Your task to perform on an android device: turn on the 24-hour format for clock Image 0: 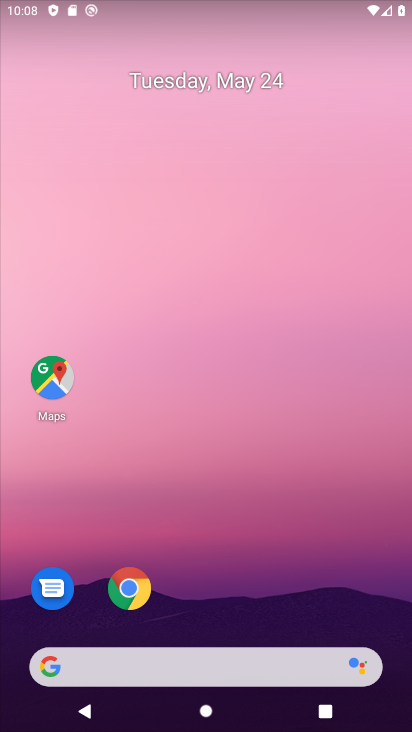
Step 0: drag from (254, 607) to (207, 11)
Your task to perform on an android device: turn on the 24-hour format for clock Image 1: 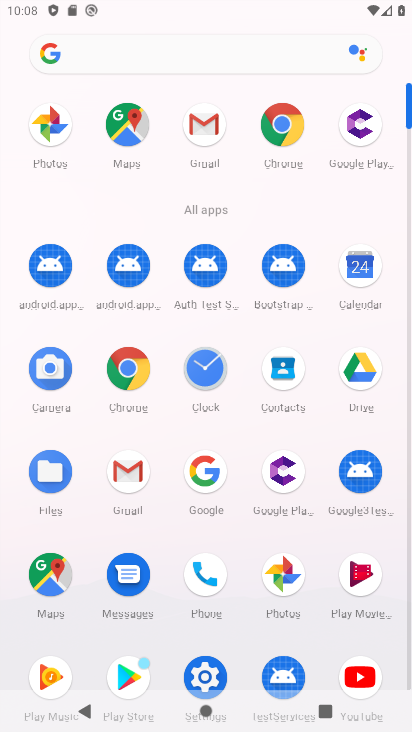
Step 1: click (349, 265)
Your task to perform on an android device: turn on the 24-hour format for clock Image 2: 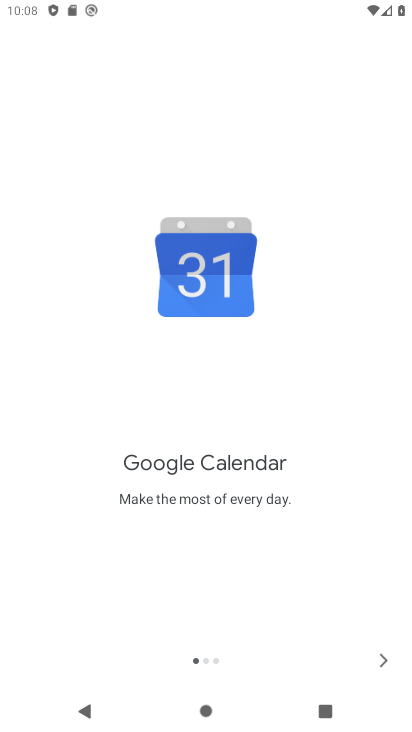
Step 2: click (382, 666)
Your task to perform on an android device: turn on the 24-hour format for clock Image 3: 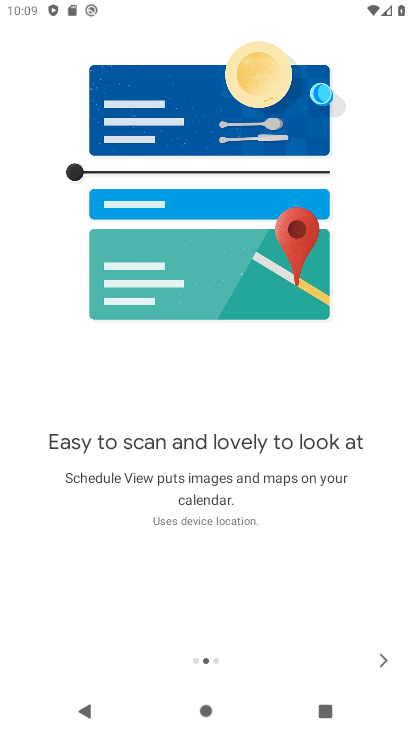
Step 3: click (382, 666)
Your task to perform on an android device: turn on the 24-hour format for clock Image 4: 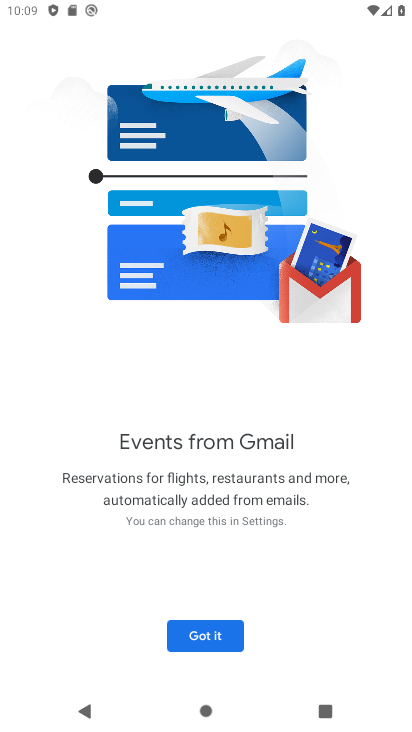
Step 4: click (201, 636)
Your task to perform on an android device: turn on the 24-hour format for clock Image 5: 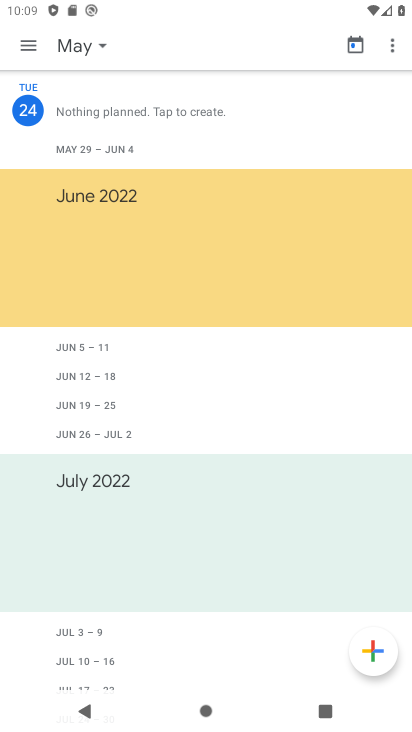
Step 5: press home button
Your task to perform on an android device: turn on the 24-hour format for clock Image 6: 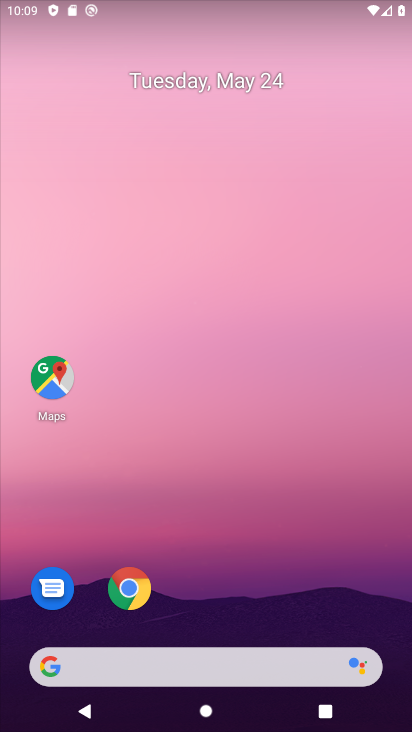
Step 6: drag from (286, 615) to (250, 129)
Your task to perform on an android device: turn on the 24-hour format for clock Image 7: 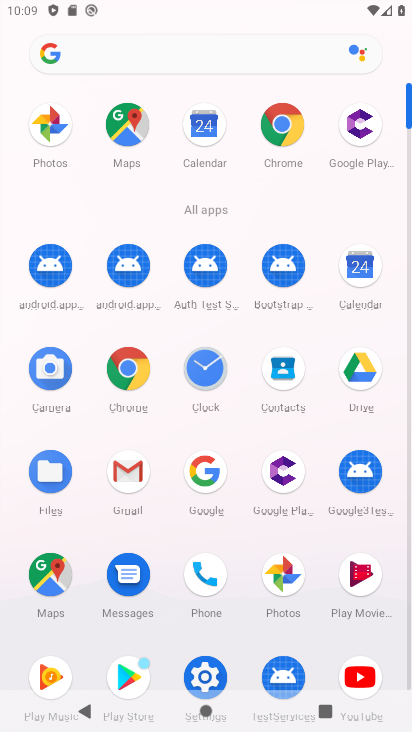
Step 7: click (204, 371)
Your task to perform on an android device: turn on the 24-hour format for clock Image 8: 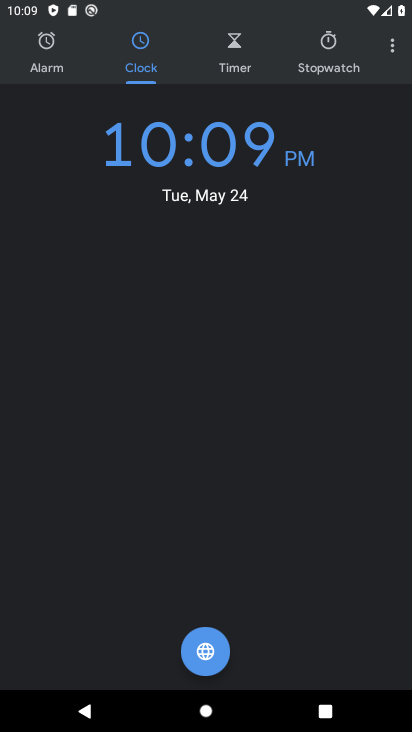
Step 8: click (392, 49)
Your task to perform on an android device: turn on the 24-hour format for clock Image 9: 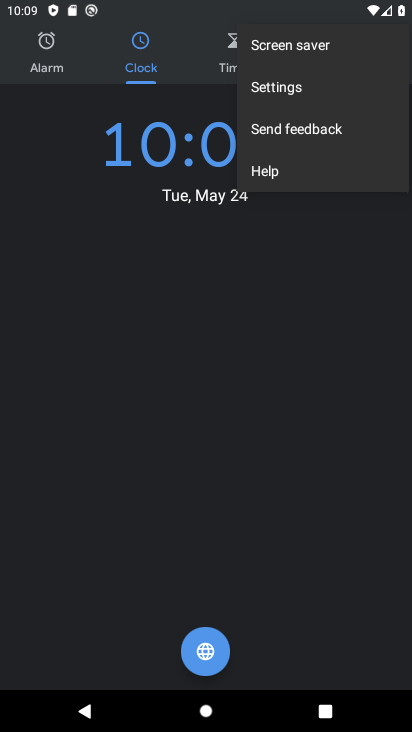
Step 9: click (347, 85)
Your task to perform on an android device: turn on the 24-hour format for clock Image 10: 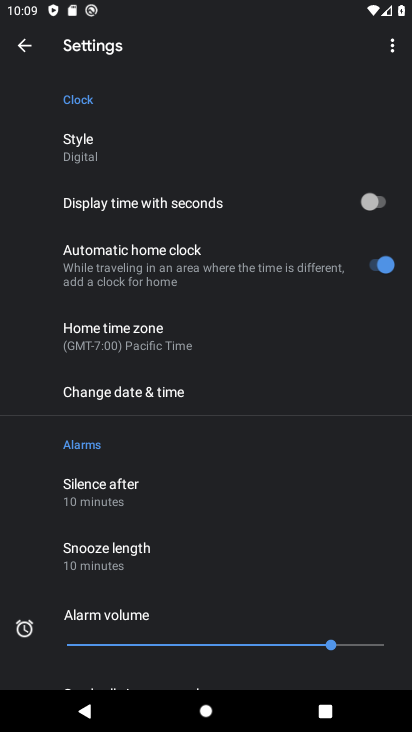
Step 10: click (277, 393)
Your task to perform on an android device: turn on the 24-hour format for clock Image 11: 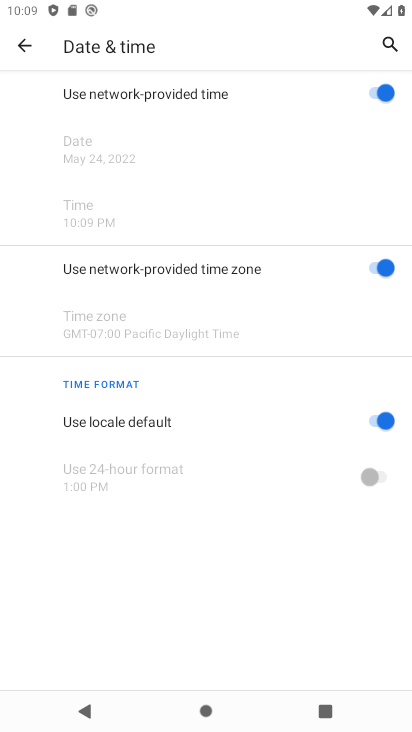
Step 11: click (375, 423)
Your task to perform on an android device: turn on the 24-hour format for clock Image 12: 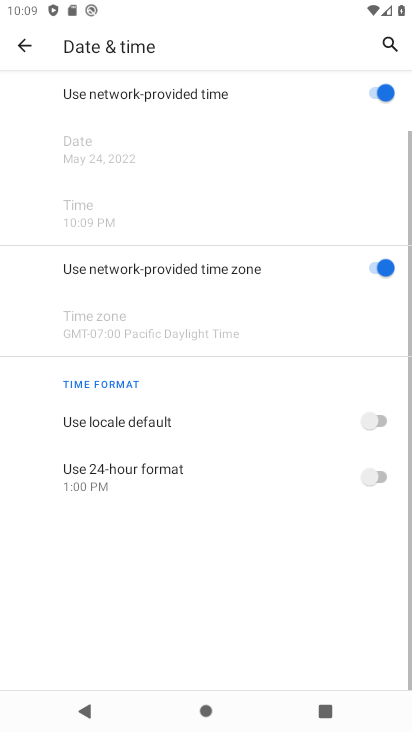
Step 12: click (380, 479)
Your task to perform on an android device: turn on the 24-hour format for clock Image 13: 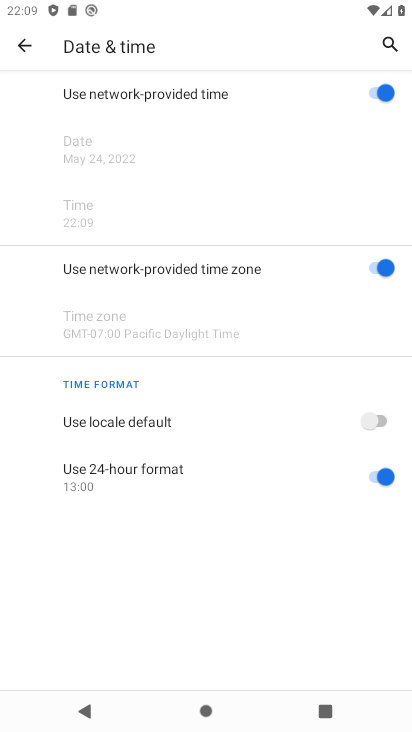
Step 13: task complete